Your task to perform on an android device: see tabs open on other devices in the chrome app Image 0: 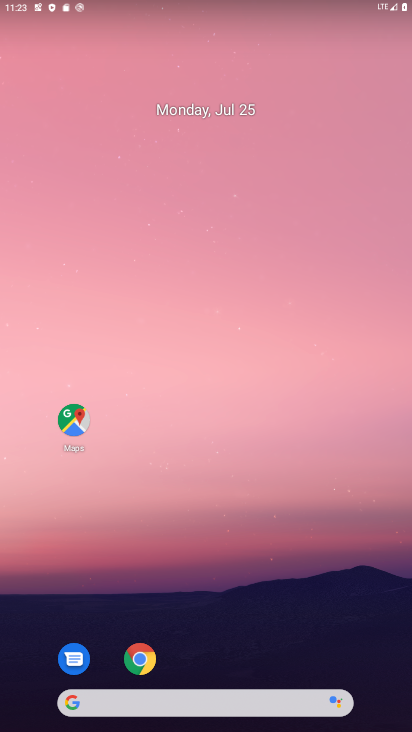
Step 0: click (144, 657)
Your task to perform on an android device: see tabs open on other devices in the chrome app Image 1: 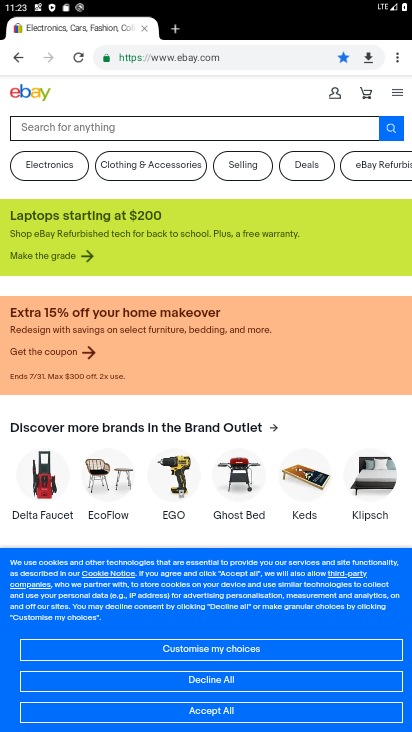
Step 1: click (404, 63)
Your task to perform on an android device: see tabs open on other devices in the chrome app Image 2: 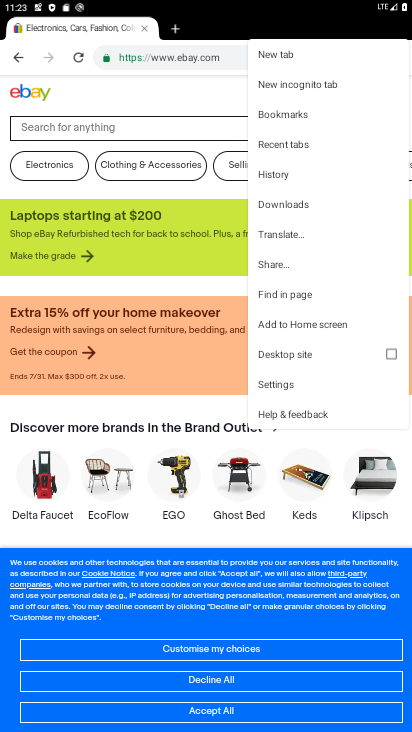
Step 2: click (284, 153)
Your task to perform on an android device: see tabs open on other devices in the chrome app Image 3: 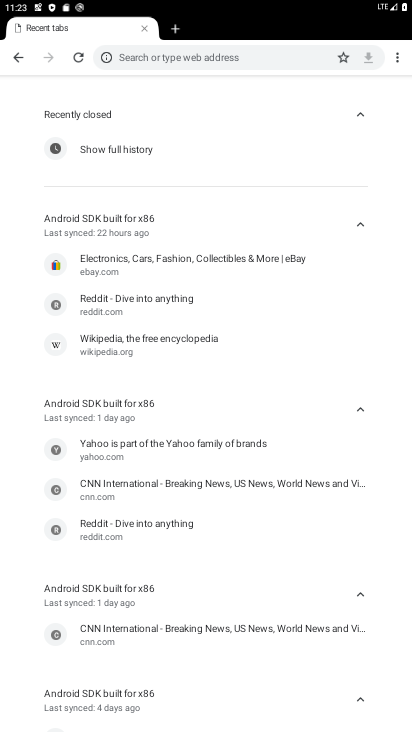
Step 3: task complete